Your task to perform on an android device: delete browsing data in the chrome app Image 0: 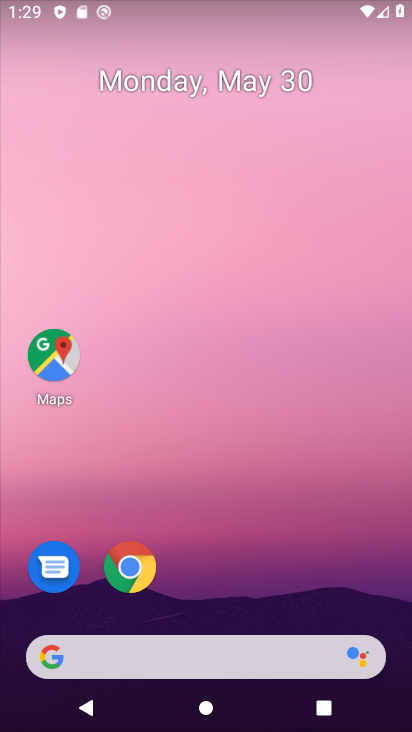
Step 0: click (123, 565)
Your task to perform on an android device: delete browsing data in the chrome app Image 1: 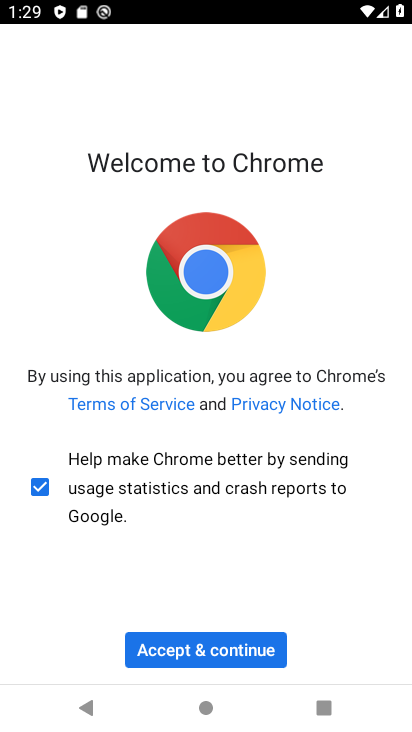
Step 1: click (174, 663)
Your task to perform on an android device: delete browsing data in the chrome app Image 2: 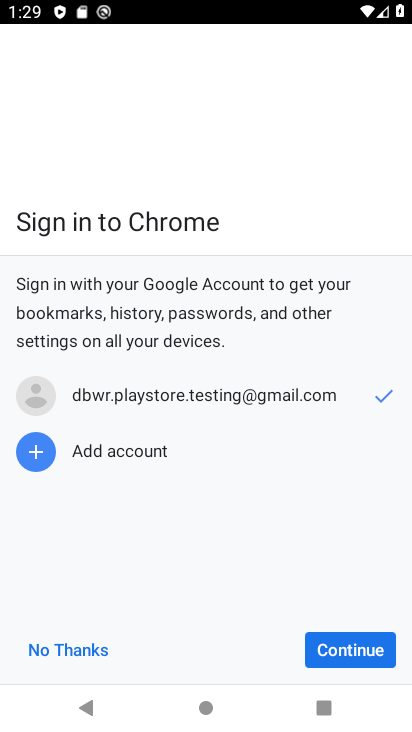
Step 2: click (321, 644)
Your task to perform on an android device: delete browsing data in the chrome app Image 3: 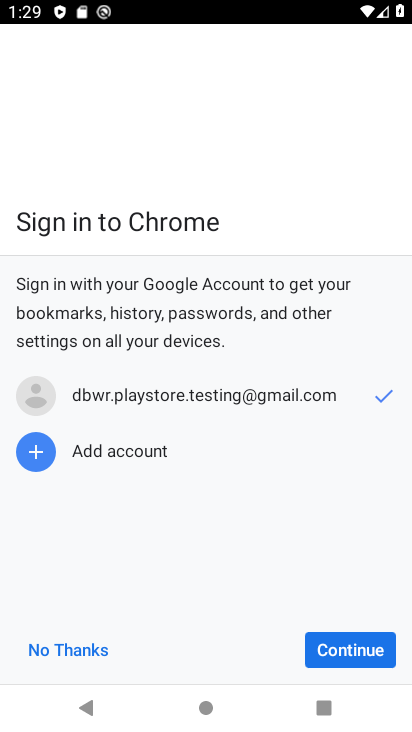
Step 3: click (321, 644)
Your task to perform on an android device: delete browsing data in the chrome app Image 4: 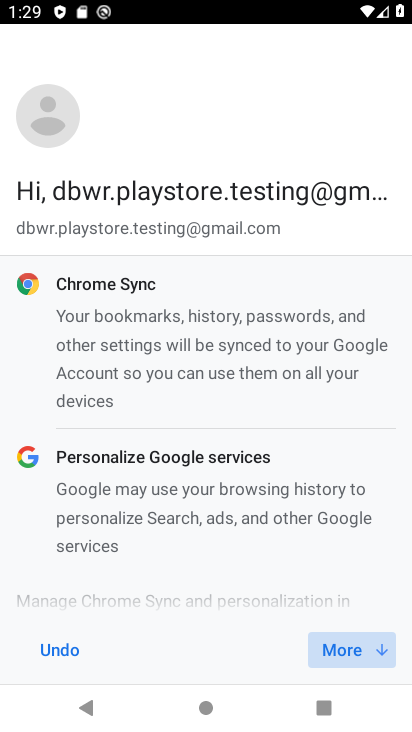
Step 4: click (321, 644)
Your task to perform on an android device: delete browsing data in the chrome app Image 5: 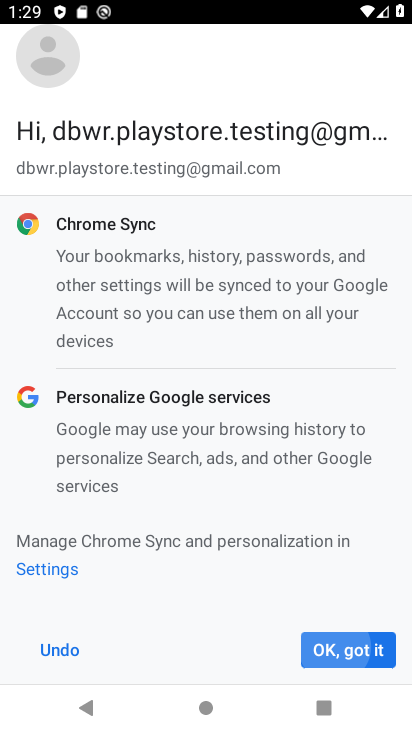
Step 5: click (321, 644)
Your task to perform on an android device: delete browsing data in the chrome app Image 6: 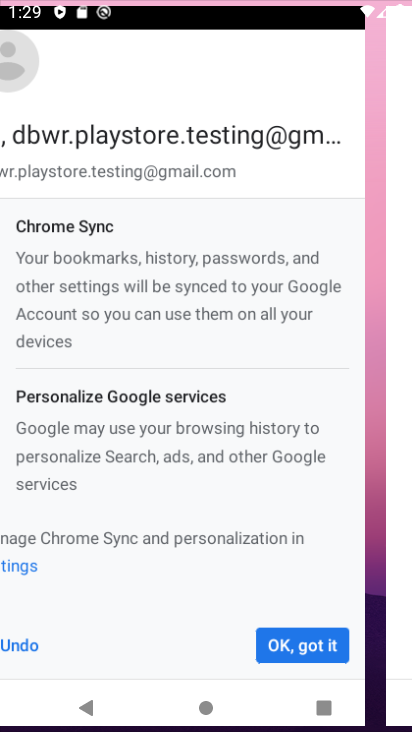
Step 6: click (321, 644)
Your task to perform on an android device: delete browsing data in the chrome app Image 7: 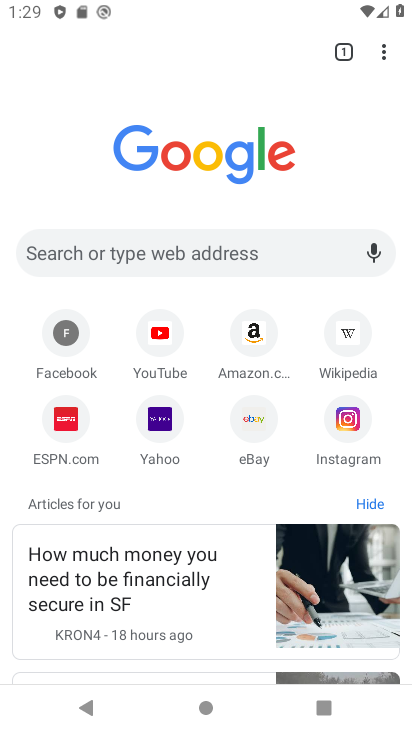
Step 7: drag from (398, 62) to (202, 427)
Your task to perform on an android device: delete browsing data in the chrome app Image 8: 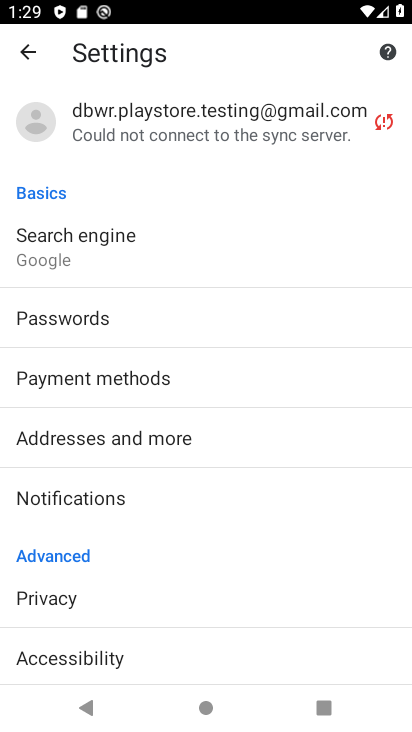
Step 8: click (88, 594)
Your task to perform on an android device: delete browsing data in the chrome app Image 9: 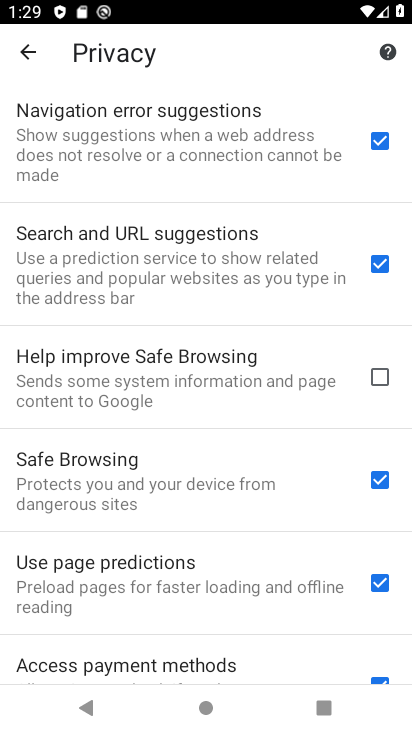
Step 9: drag from (110, 538) to (132, 224)
Your task to perform on an android device: delete browsing data in the chrome app Image 10: 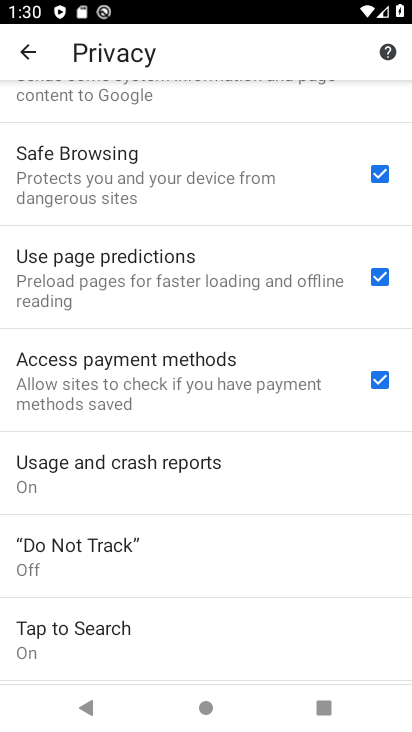
Step 10: drag from (300, 622) to (251, 314)
Your task to perform on an android device: delete browsing data in the chrome app Image 11: 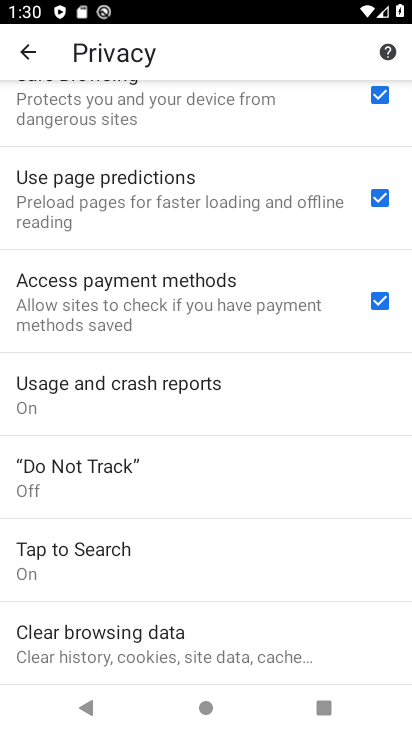
Step 11: click (179, 638)
Your task to perform on an android device: delete browsing data in the chrome app Image 12: 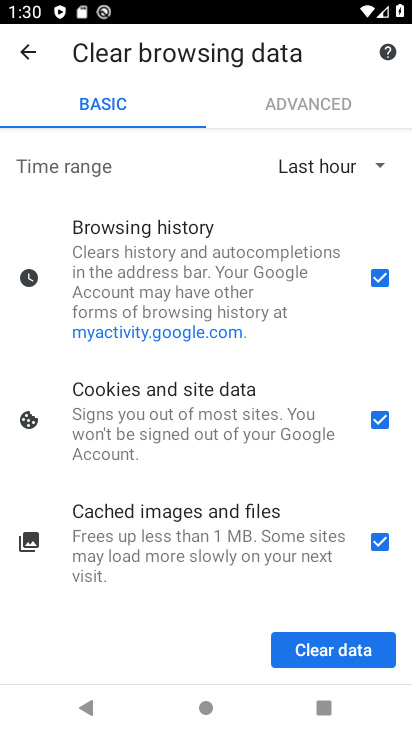
Step 12: click (332, 657)
Your task to perform on an android device: delete browsing data in the chrome app Image 13: 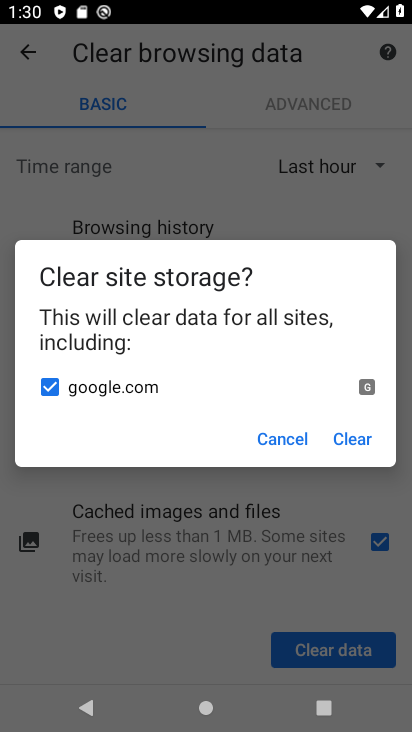
Step 13: click (295, 646)
Your task to perform on an android device: delete browsing data in the chrome app Image 14: 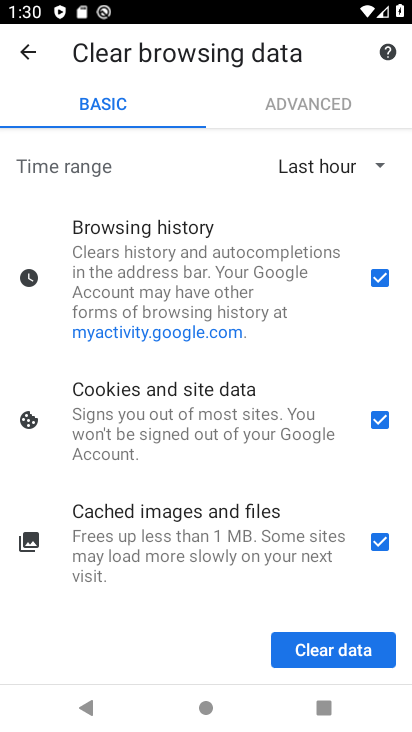
Step 14: click (350, 653)
Your task to perform on an android device: delete browsing data in the chrome app Image 15: 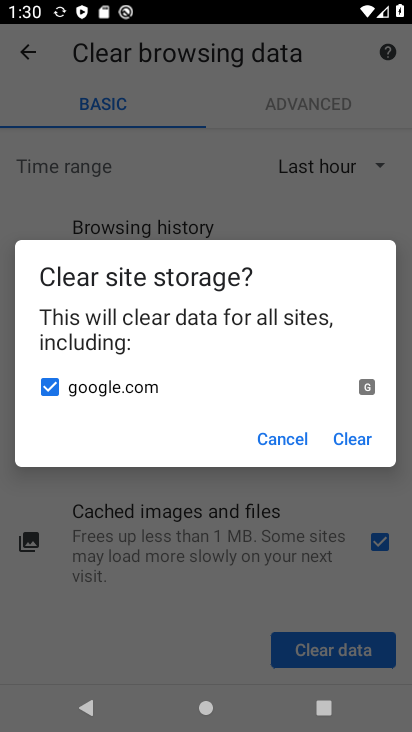
Step 15: click (358, 445)
Your task to perform on an android device: delete browsing data in the chrome app Image 16: 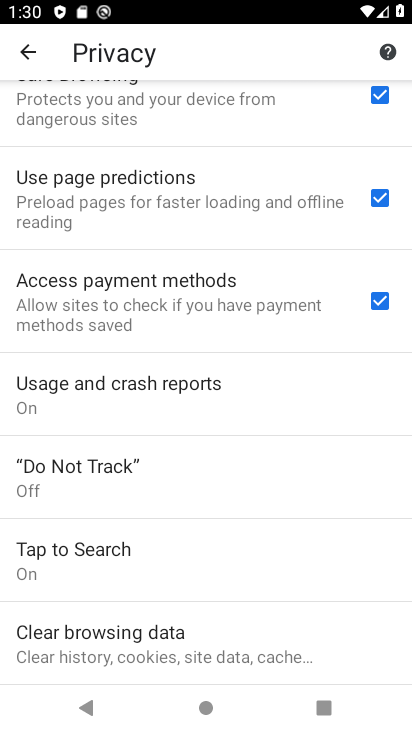
Step 16: task complete